Your task to perform on an android device: open app "Paramount+ | Peak Streaming" Image 0: 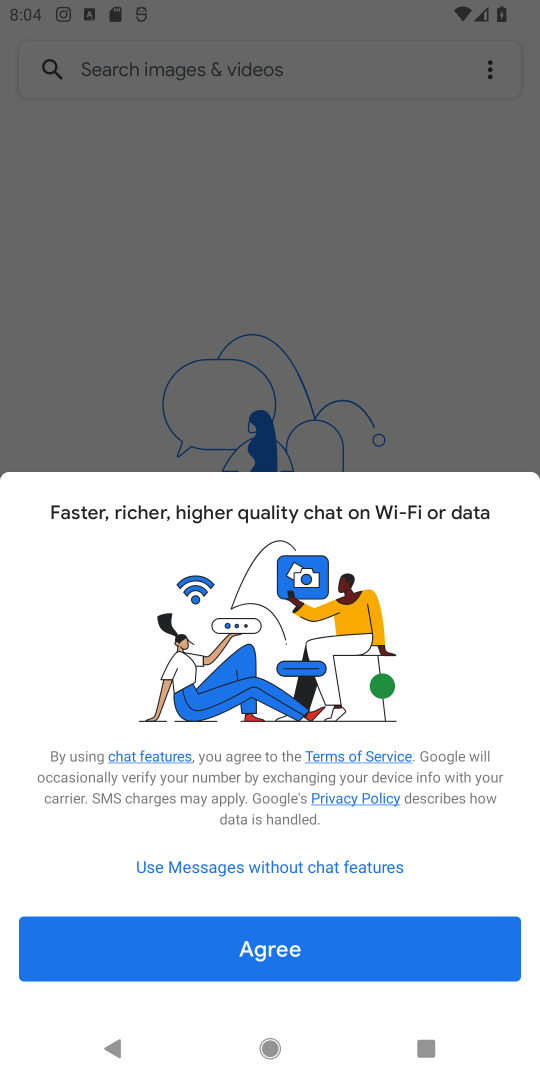
Step 0: press home button
Your task to perform on an android device: open app "Paramount+ | Peak Streaming" Image 1: 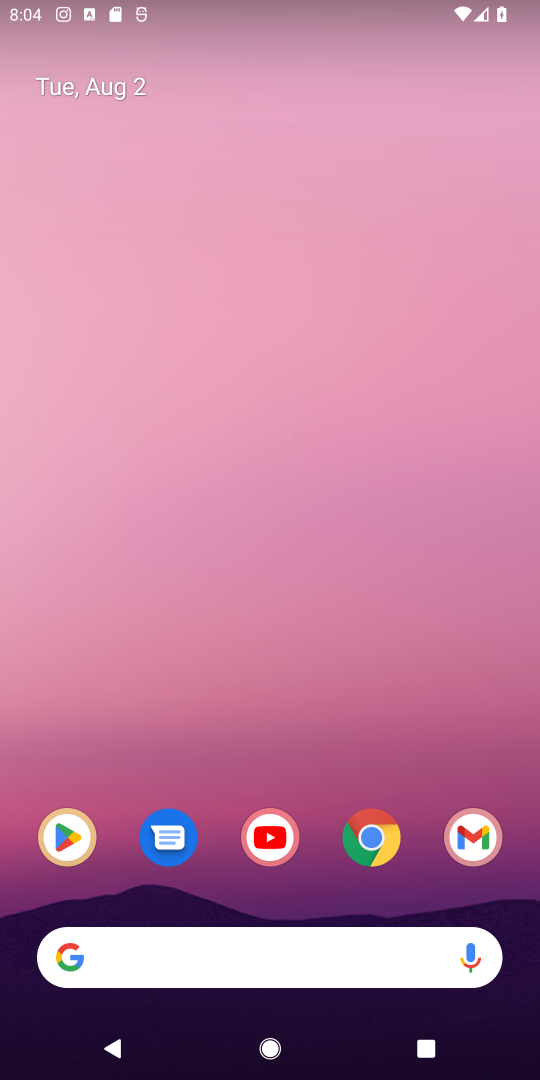
Step 1: click (62, 841)
Your task to perform on an android device: open app "Paramount+ | Peak Streaming" Image 2: 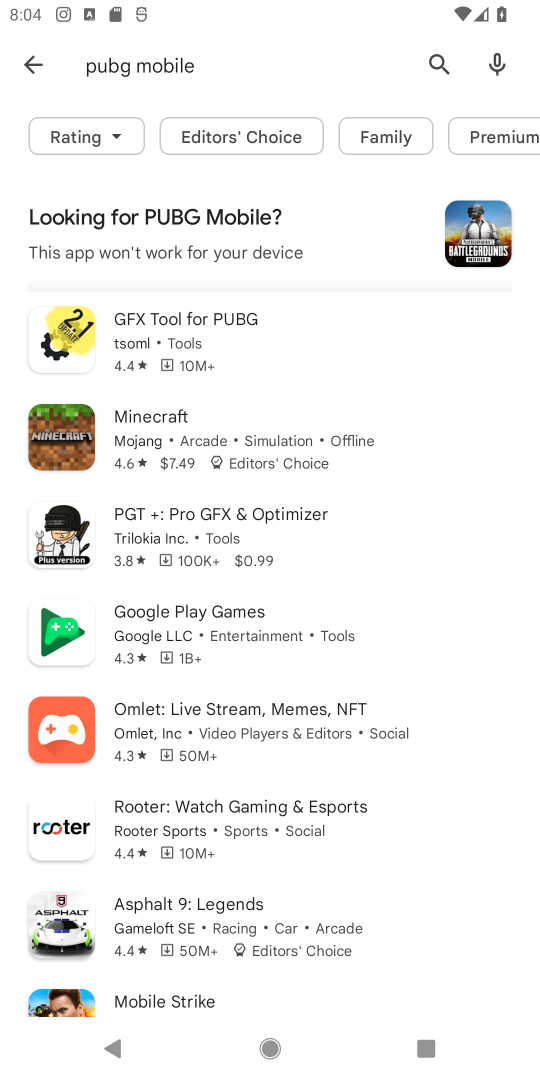
Step 2: click (439, 65)
Your task to perform on an android device: open app "Paramount+ | Peak Streaming" Image 3: 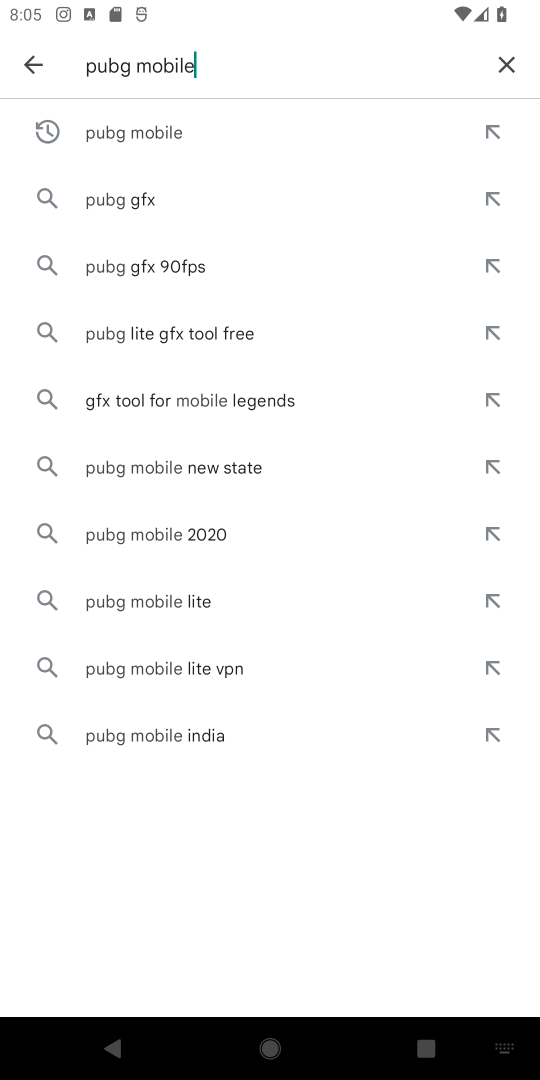
Step 3: click (512, 64)
Your task to perform on an android device: open app "Paramount+ | Peak Streaming" Image 4: 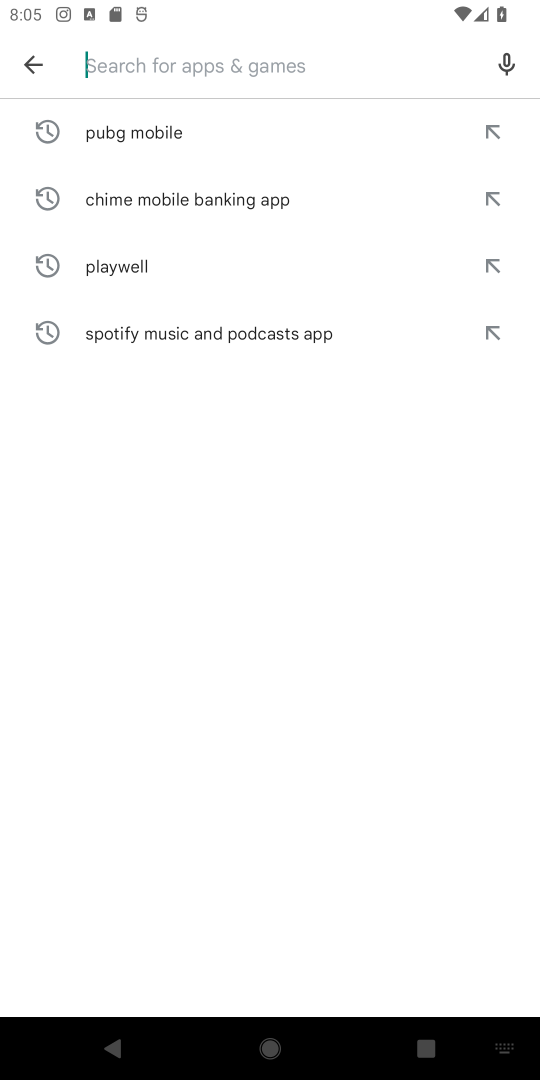
Step 4: type "Paramount+ | Peak Streaming"
Your task to perform on an android device: open app "Paramount+ | Peak Streaming" Image 5: 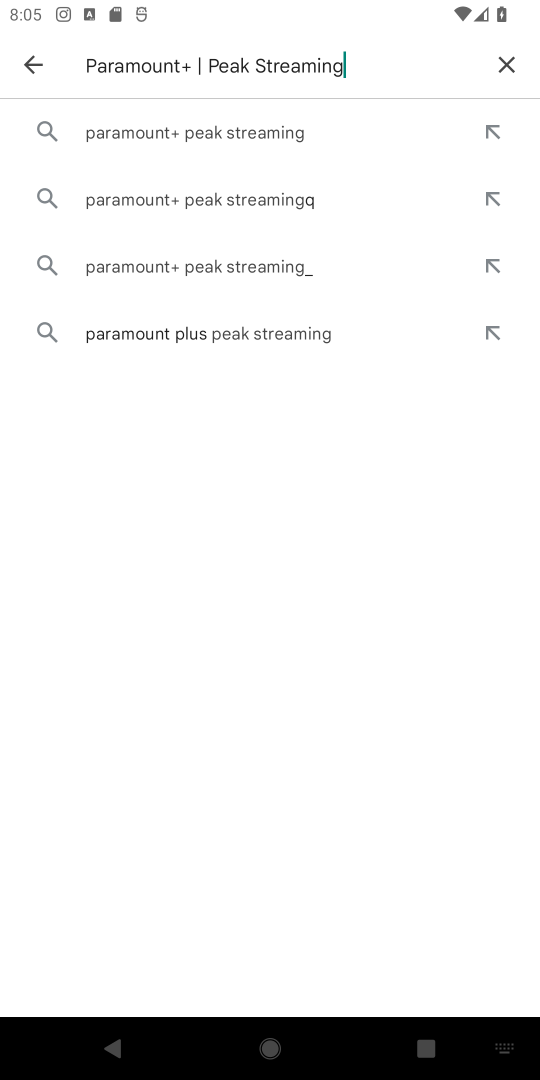
Step 5: click (142, 138)
Your task to perform on an android device: open app "Paramount+ | Peak Streaming" Image 6: 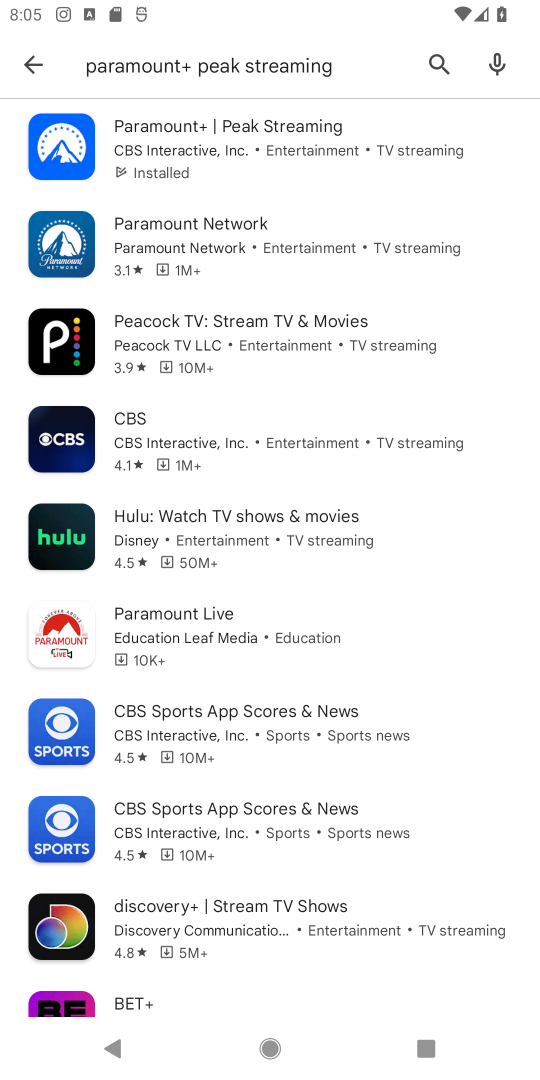
Step 6: click (142, 138)
Your task to perform on an android device: open app "Paramount+ | Peak Streaming" Image 7: 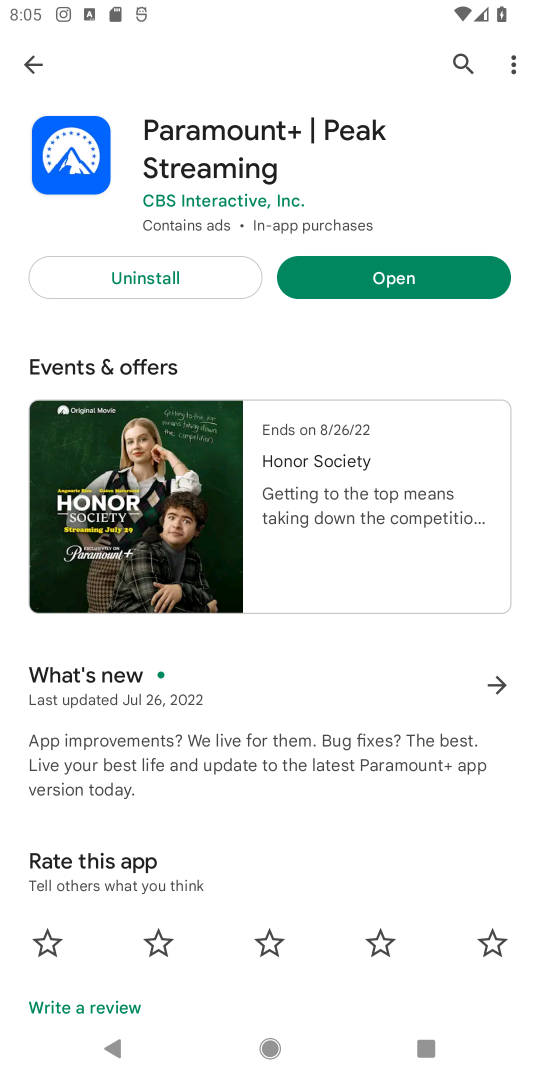
Step 7: click (334, 275)
Your task to perform on an android device: open app "Paramount+ | Peak Streaming" Image 8: 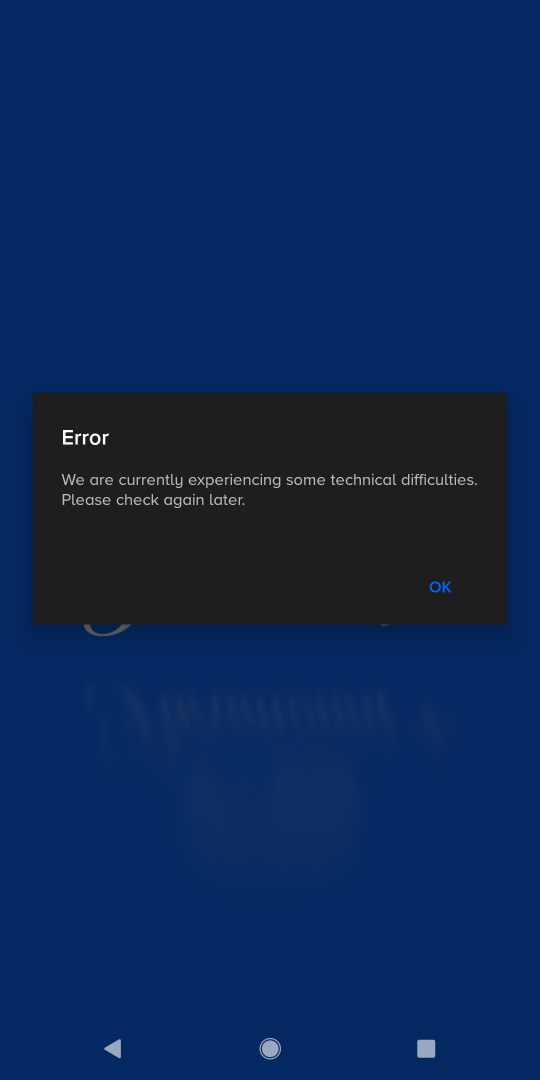
Step 8: task complete